Your task to perform on an android device: open a bookmark in the chrome app Image 0: 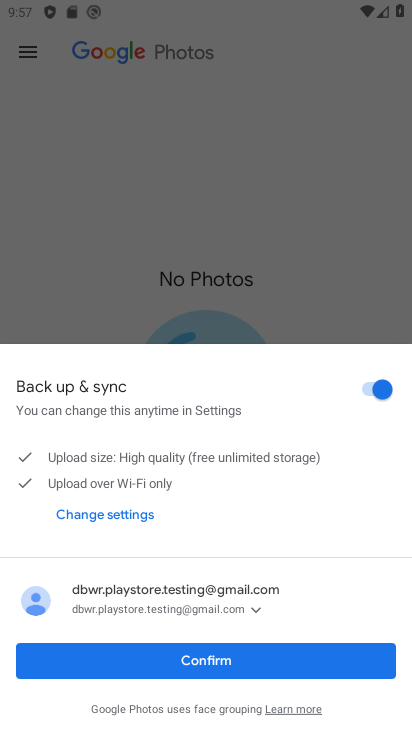
Step 0: press home button
Your task to perform on an android device: open a bookmark in the chrome app Image 1: 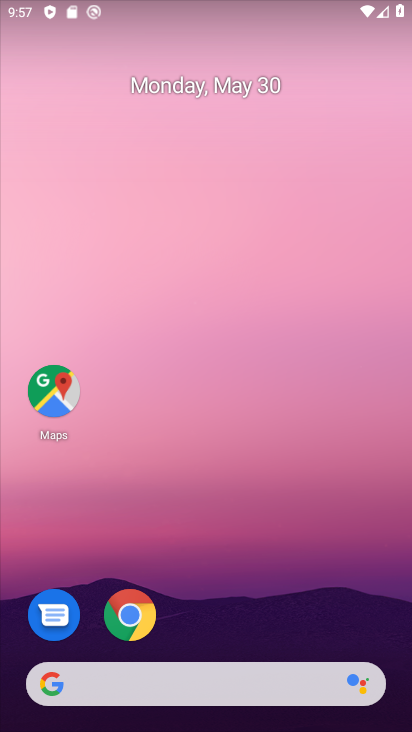
Step 1: click (125, 613)
Your task to perform on an android device: open a bookmark in the chrome app Image 2: 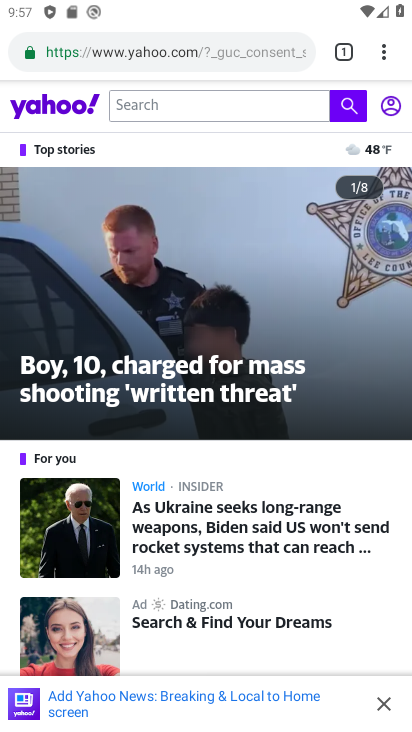
Step 2: click (384, 54)
Your task to perform on an android device: open a bookmark in the chrome app Image 3: 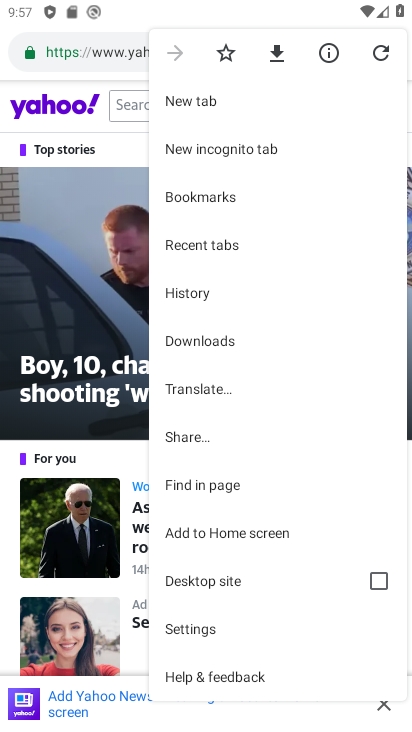
Step 3: click (194, 194)
Your task to perform on an android device: open a bookmark in the chrome app Image 4: 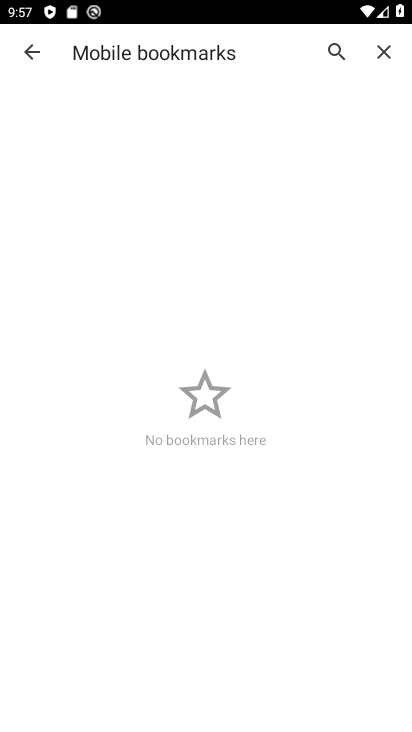
Step 4: task complete